Your task to perform on an android device: install app "Duolingo: language lessons" Image 0: 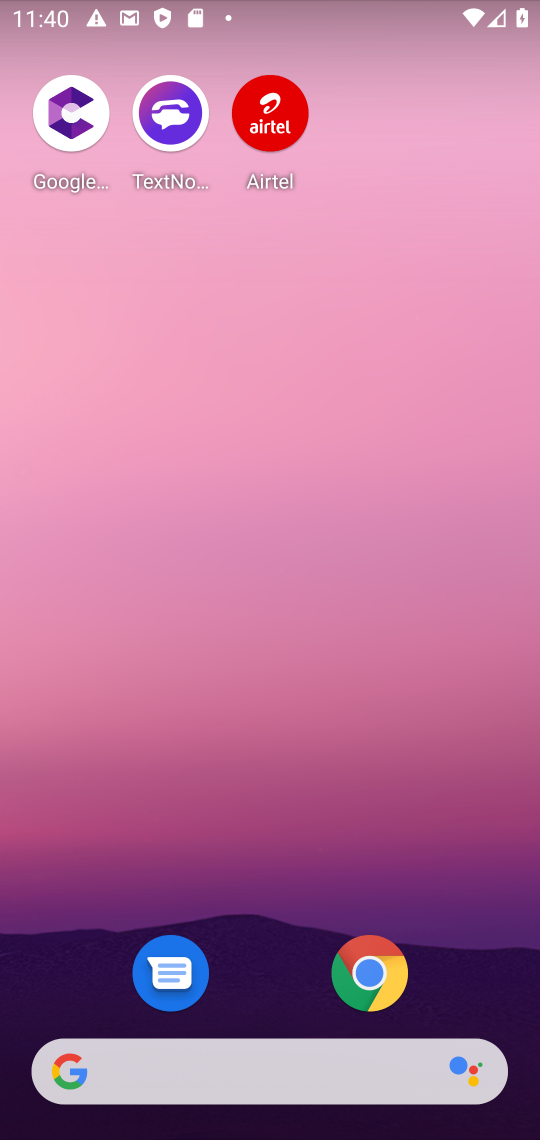
Step 0: drag from (266, 600) to (266, 202)
Your task to perform on an android device: install app "Duolingo: language lessons" Image 1: 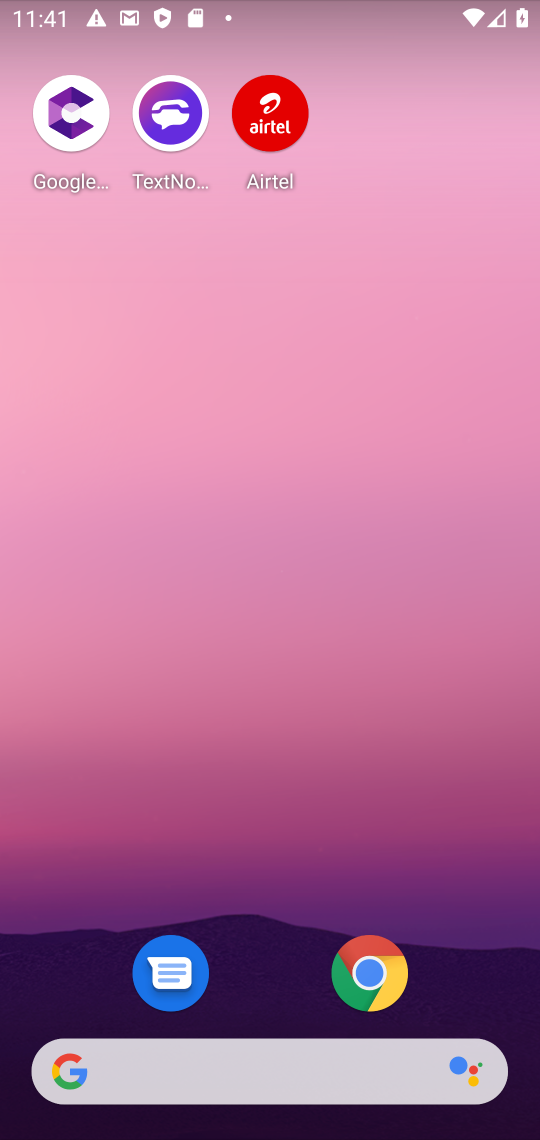
Step 1: drag from (267, 935) to (190, 58)
Your task to perform on an android device: install app "Duolingo: language lessons" Image 2: 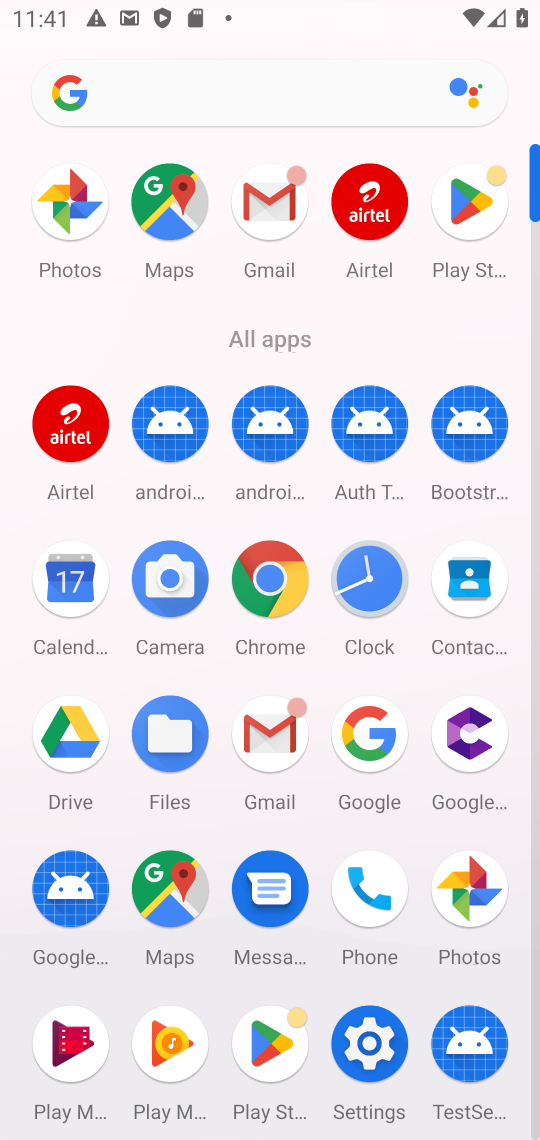
Step 2: click (268, 1027)
Your task to perform on an android device: install app "Duolingo: language lessons" Image 3: 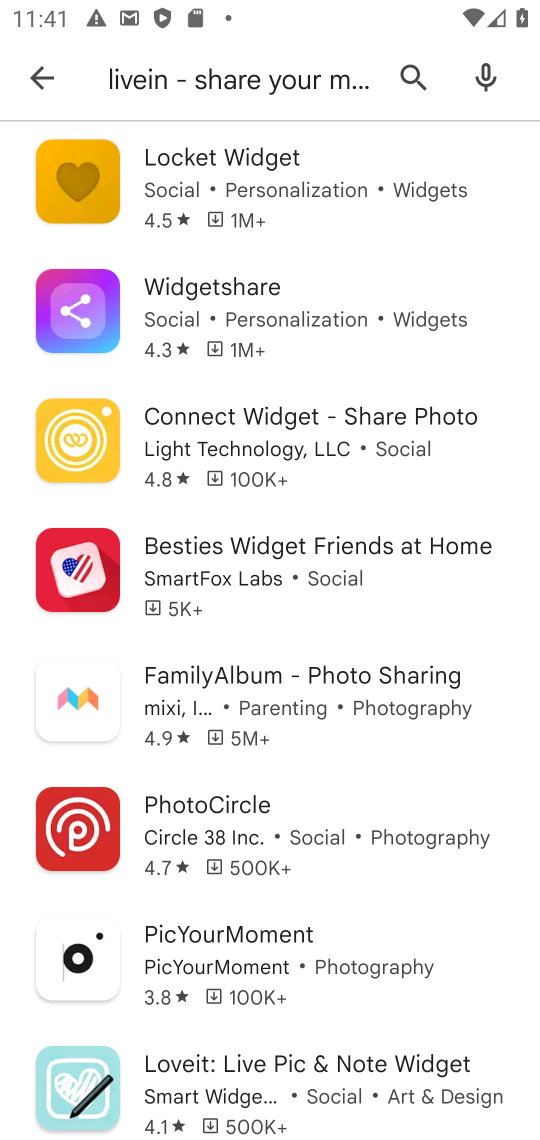
Step 3: click (407, 81)
Your task to perform on an android device: install app "Duolingo: language lessons" Image 4: 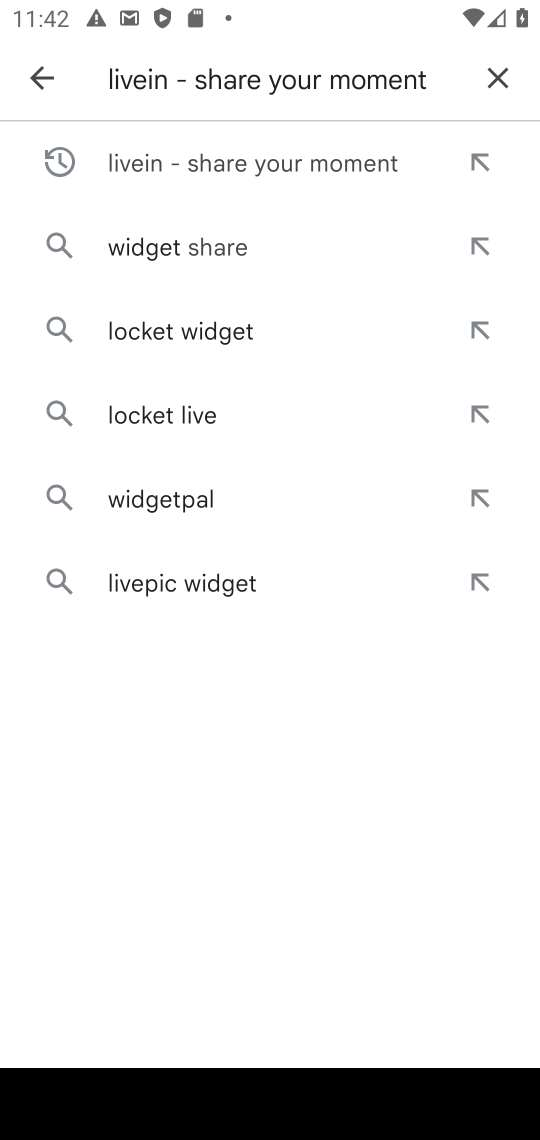
Step 4: click (498, 74)
Your task to perform on an android device: install app "Duolingo: language lessons" Image 5: 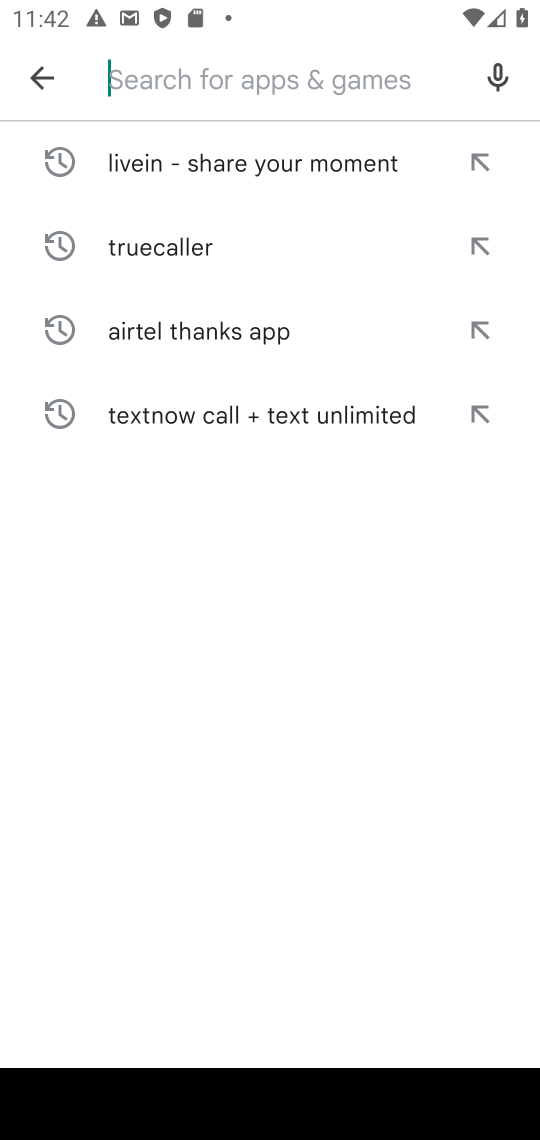
Step 5: type "Duolingo: language lessons"
Your task to perform on an android device: install app "Duolingo: language lessons" Image 6: 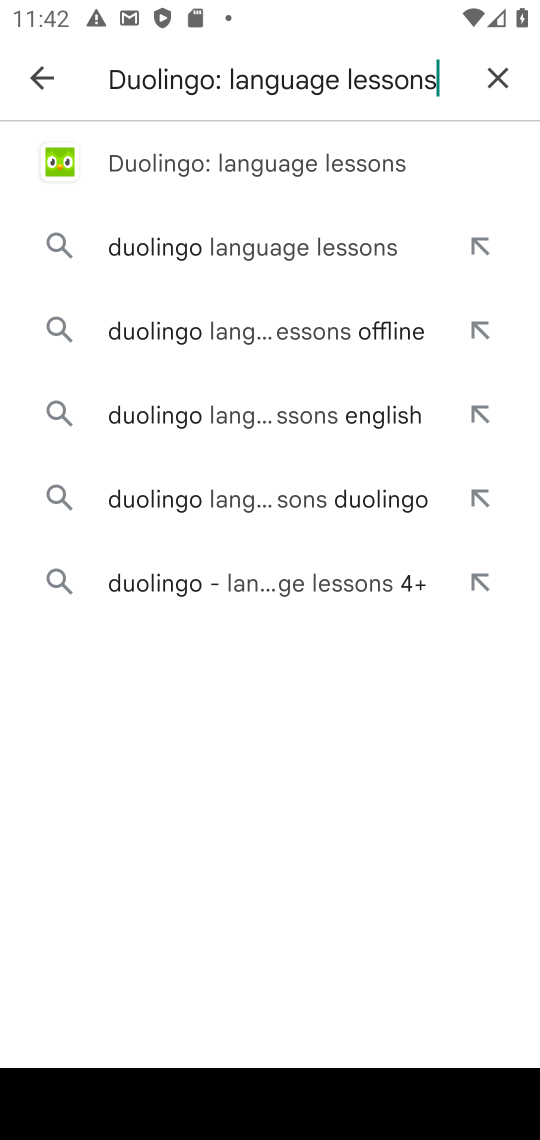
Step 6: click (315, 166)
Your task to perform on an android device: install app "Duolingo: language lessons" Image 7: 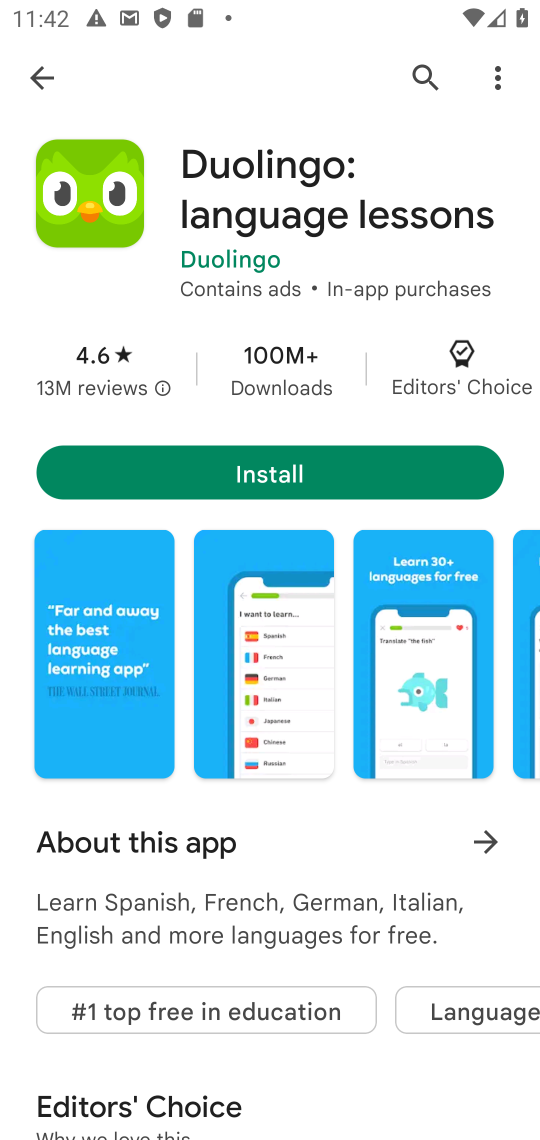
Step 7: click (298, 469)
Your task to perform on an android device: install app "Duolingo: language lessons" Image 8: 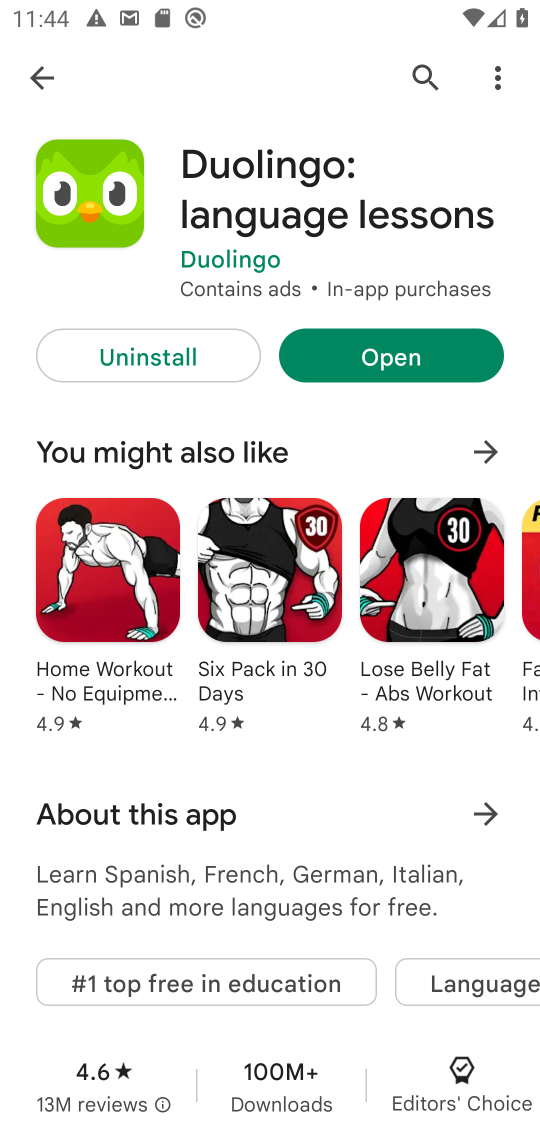
Step 8: task complete